Your task to perform on an android device: set an alarm Image 0: 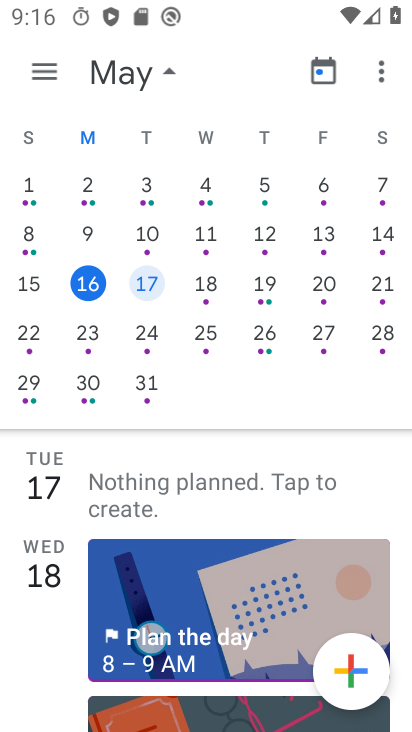
Step 0: press back button
Your task to perform on an android device: set an alarm Image 1: 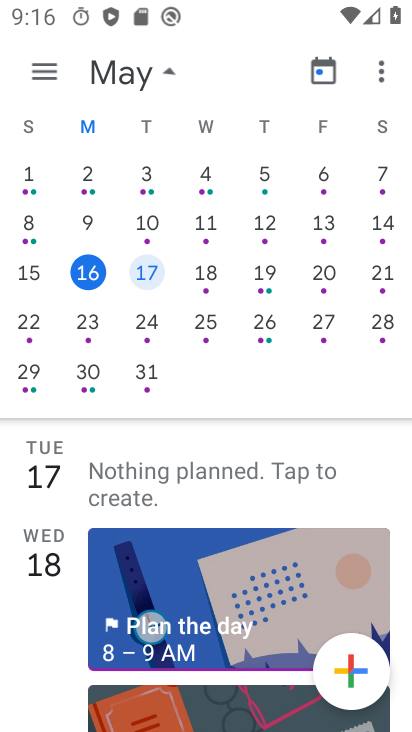
Step 1: press back button
Your task to perform on an android device: set an alarm Image 2: 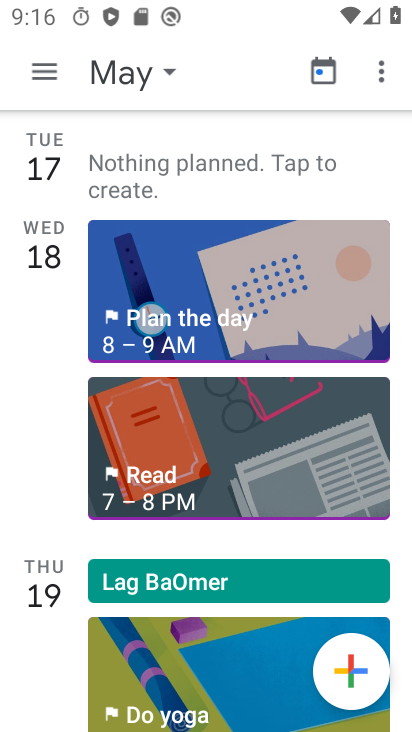
Step 2: press back button
Your task to perform on an android device: set an alarm Image 3: 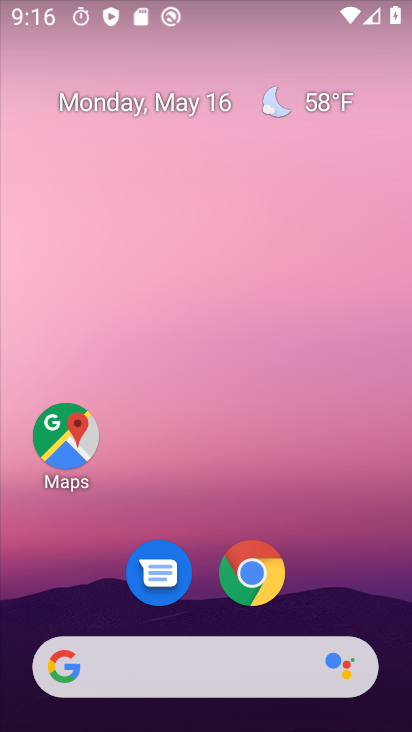
Step 3: drag from (327, 639) to (219, 260)
Your task to perform on an android device: set an alarm Image 4: 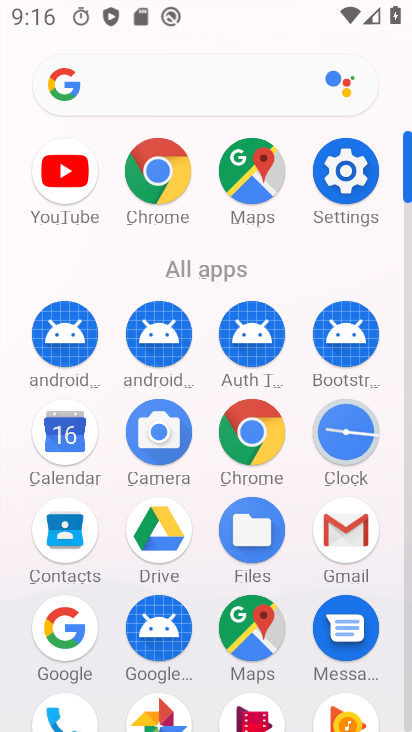
Step 4: click (339, 432)
Your task to perform on an android device: set an alarm Image 5: 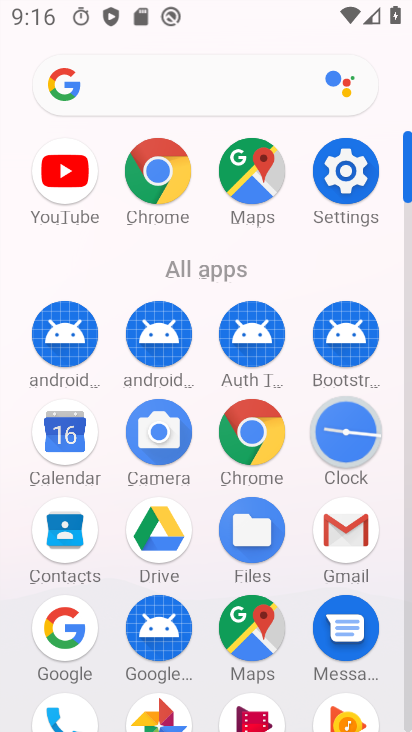
Step 5: click (340, 429)
Your task to perform on an android device: set an alarm Image 6: 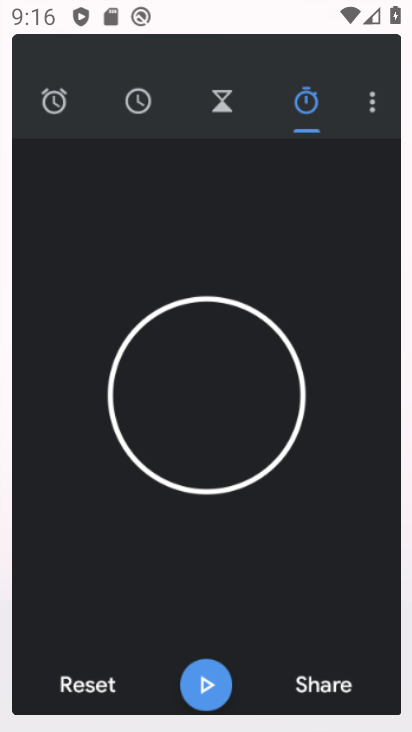
Step 6: click (340, 429)
Your task to perform on an android device: set an alarm Image 7: 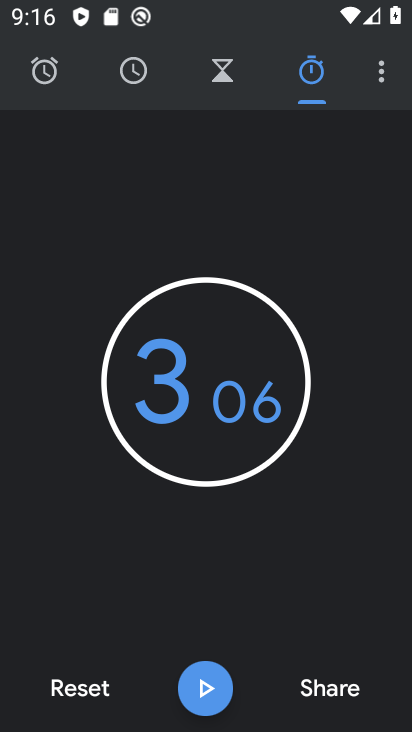
Step 7: click (55, 70)
Your task to perform on an android device: set an alarm Image 8: 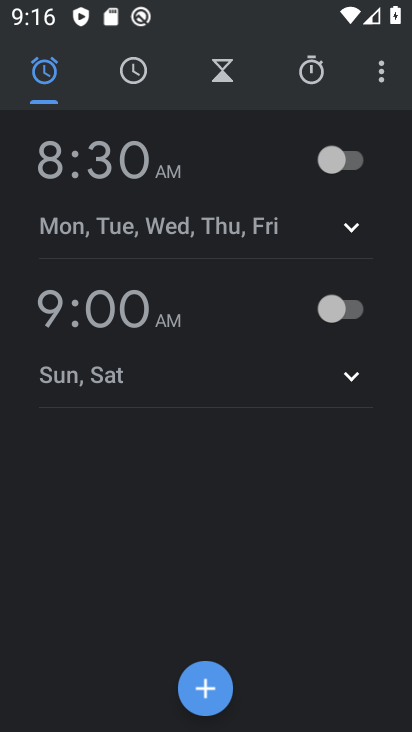
Step 8: click (344, 164)
Your task to perform on an android device: set an alarm Image 9: 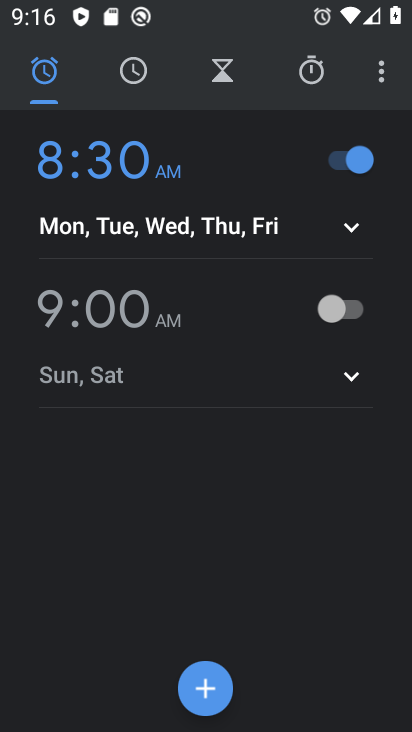
Step 9: task complete